Your task to perform on an android device: uninstall "Paramount+ | Peak Streaming" Image 0: 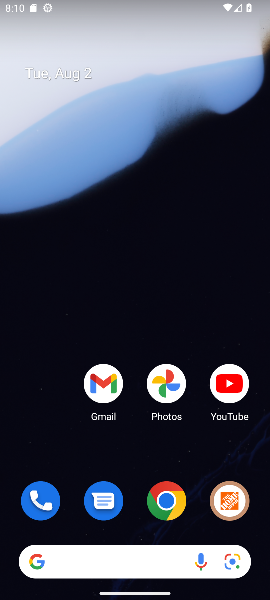
Step 0: drag from (157, 453) to (251, 87)
Your task to perform on an android device: uninstall "Paramount+ | Peak Streaming" Image 1: 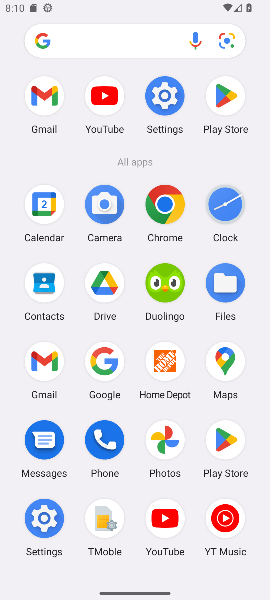
Step 1: click (224, 436)
Your task to perform on an android device: uninstall "Paramount+ | Peak Streaming" Image 2: 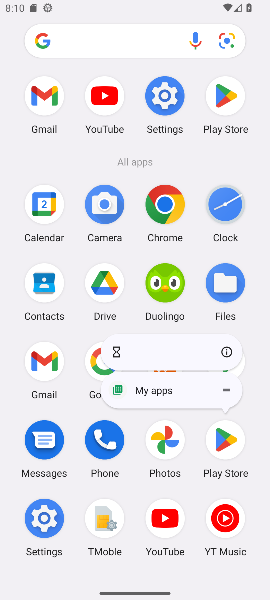
Step 2: click (219, 103)
Your task to perform on an android device: uninstall "Paramount+ | Peak Streaming" Image 3: 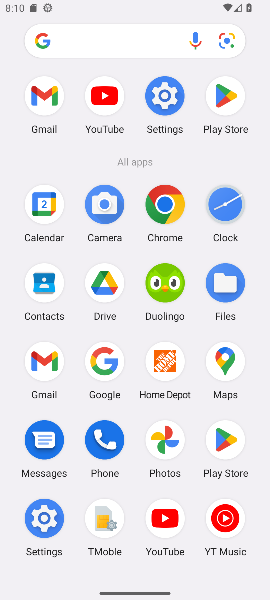
Step 3: click (227, 98)
Your task to perform on an android device: uninstall "Paramount+ | Peak Streaming" Image 4: 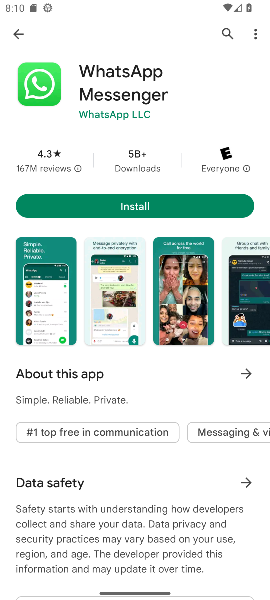
Step 4: drag from (147, 466) to (173, 137)
Your task to perform on an android device: uninstall "Paramount+ | Peak Streaming" Image 5: 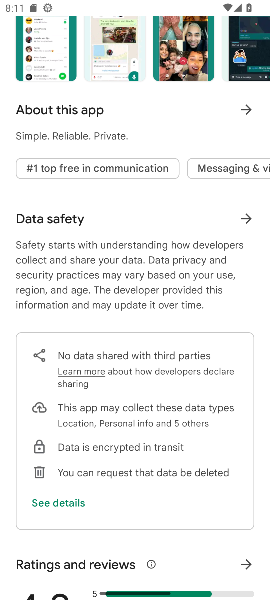
Step 5: drag from (188, 509) to (137, 335)
Your task to perform on an android device: uninstall "Paramount+ | Peak Streaming" Image 6: 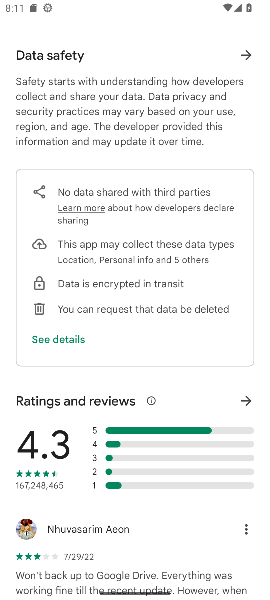
Step 6: drag from (153, 431) to (173, 227)
Your task to perform on an android device: uninstall "Paramount+ | Peak Streaming" Image 7: 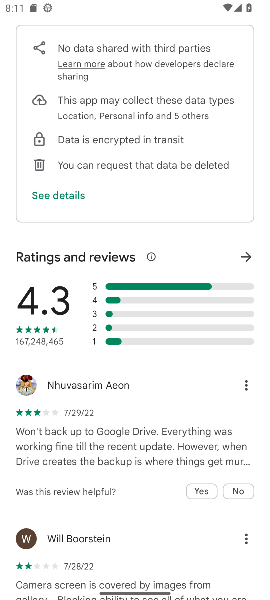
Step 7: drag from (153, 496) to (232, 82)
Your task to perform on an android device: uninstall "Paramount+ | Peak Streaming" Image 8: 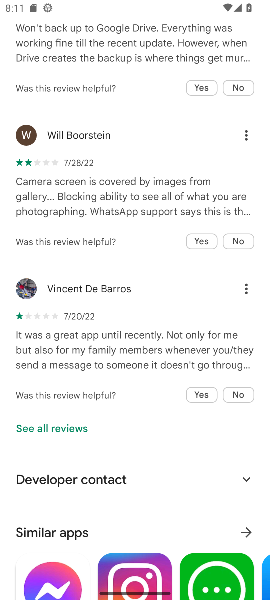
Step 8: drag from (159, 489) to (165, 136)
Your task to perform on an android device: uninstall "Paramount+ | Peak Streaming" Image 9: 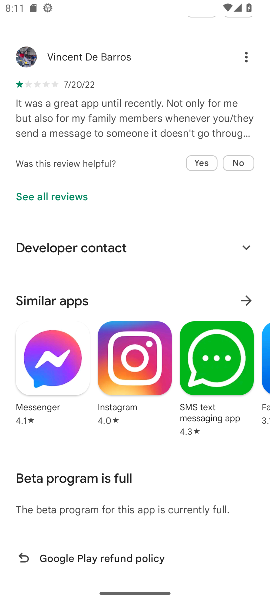
Step 9: drag from (154, 554) to (187, 152)
Your task to perform on an android device: uninstall "Paramount+ | Peak Streaming" Image 10: 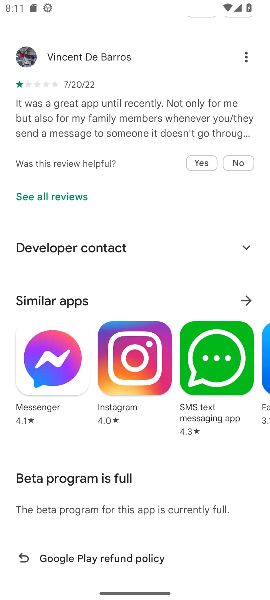
Step 10: drag from (163, 529) to (153, 99)
Your task to perform on an android device: uninstall "Paramount+ | Peak Streaming" Image 11: 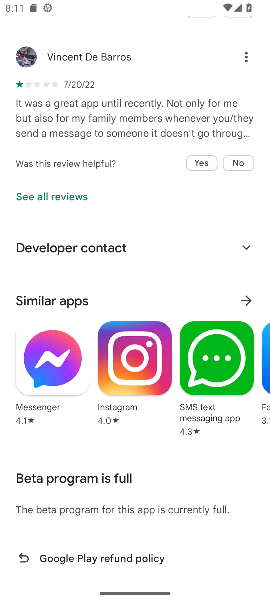
Step 11: drag from (126, 521) to (131, 184)
Your task to perform on an android device: uninstall "Paramount+ | Peak Streaming" Image 12: 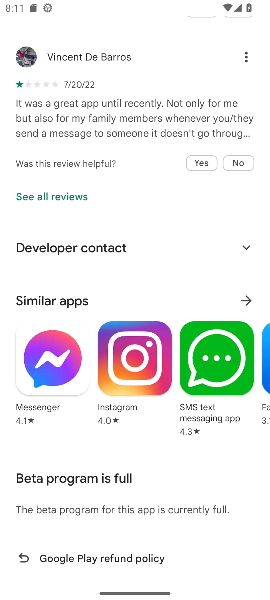
Step 12: drag from (120, 507) to (120, 196)
Your task to perform on an android device: uninstall "Paramount+ | Peak Streaming" Image 13: 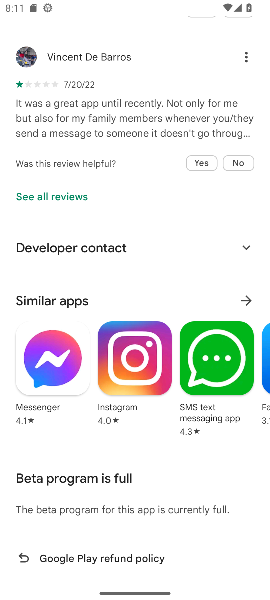
Step 13: drag from (158, 533) to (135, 158)
Your task to perform on an android device: uninstall "Paramount+ | Peak Streaming" Image 14: 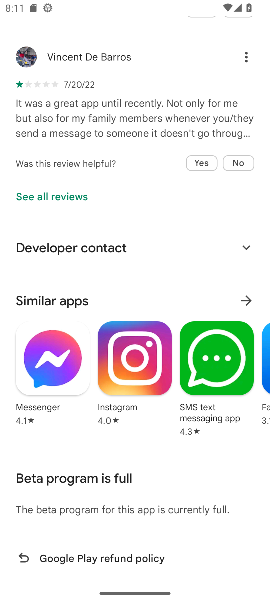
Step 14: drag from (131, 552) to (140, 223)
Your task to perform on an android device: uninstall "Paramount+ | Peak Streaming" Image 15: 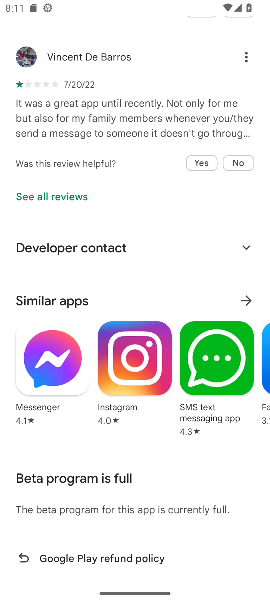
Step 15: drag from (104, 496) to (215, 180)
Your task to perform on an android device: uninstall "Paramount+ | Peak Streaming" Image 16: 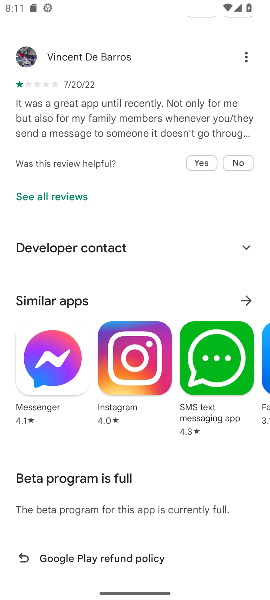
Step 16: drag from (158, 231) to (182, 599)
Your task to perform on an android device: uninstall "Paramount+ | Peak Streaming" Image 17: 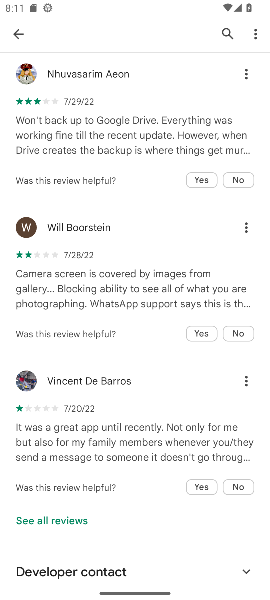
Step 17: drag from (140, 216) to (157, 574)
Your task to perform on an android device: uninstall "Paramount+ | Peak Streaming" Image 18: 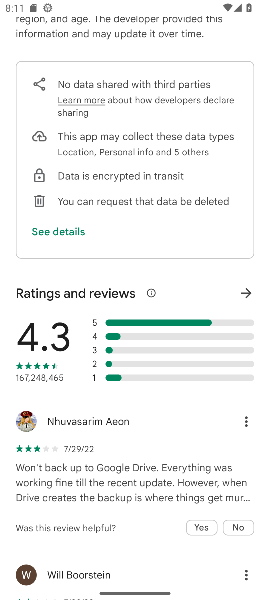
Step 18: drag from (136, 248) to (119, 533)
Your task to perform on an android device: uninstall "Paramount+ | Peak Streaming" Image 19: 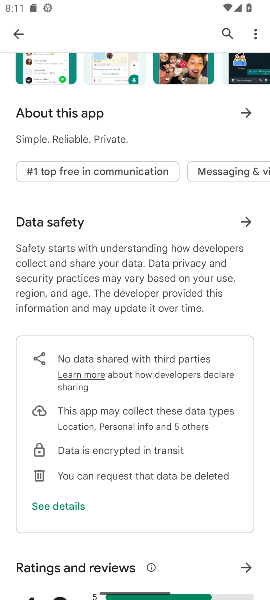
Step 19: drag from (130, 283) to (214, 592)
Your task to perform on an android device: uninstall "Paramount+ | Peak Streaming" Image 20: 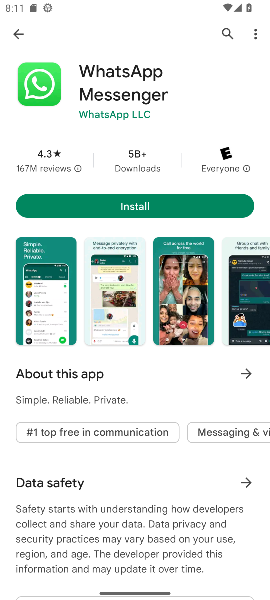
Step 20: click (229, 28)
Your task to perform on an android device: uninstall "Paramount+ | Peak Streaming" Image 21: 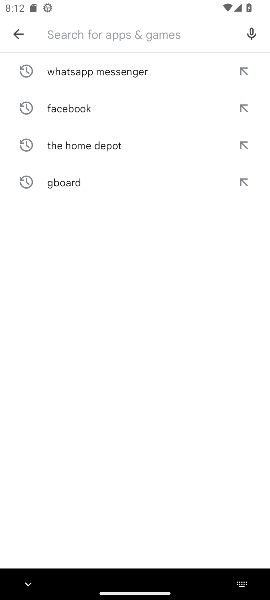
Step 21: click (64, 46)
Your task to perform on an android device: uninstall "Paramount+ | Peak Streaming" Image 22: 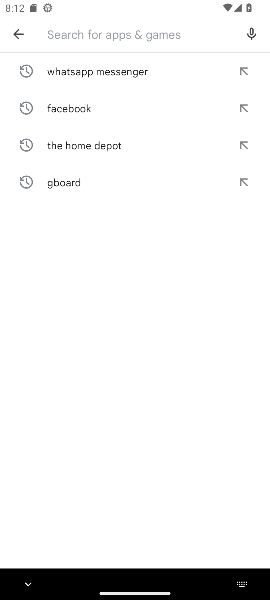
Step 22: type "Paramount+ | Peak Streaming"
Your task to perform on an android device: uninstall "Paramount+ | Peak Streaming" Image 23: 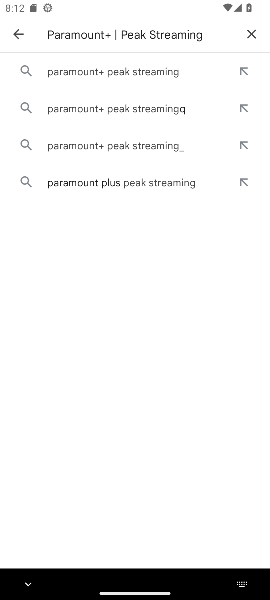
Step 23: click (252, 38)
Your task to perform on an android device: uninstall "Paramount+ | Peak Streaming" Image 24: 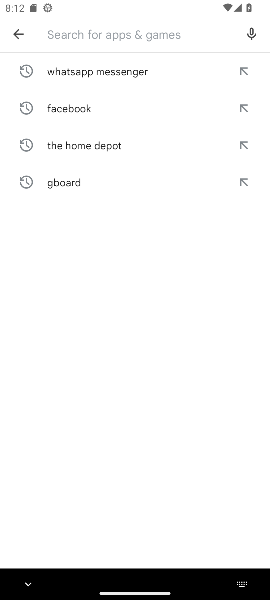
Step 24: click (91, 29)
Your task to perform on an android device: uninstall "Paramount+ | Peak Streaming" Image 25: 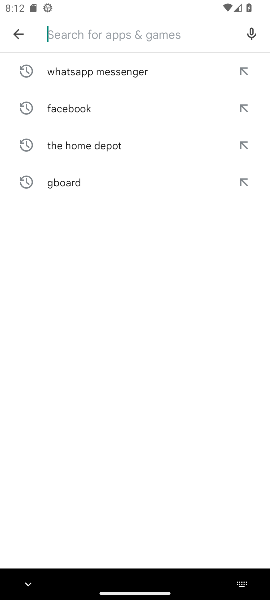
Step 25: type "Paramount+ | Peak Streaming"
Your task to perform on an android device: uninstall "Paramount+ | Peak Streaming" Image 26: 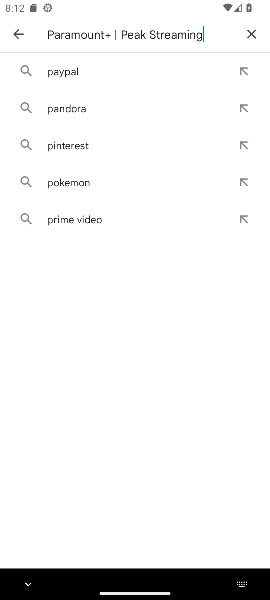
Step 26: type ""
Your task to perform on an android device: uninstall "Paramount+ | Peak Streaming" Image 27: 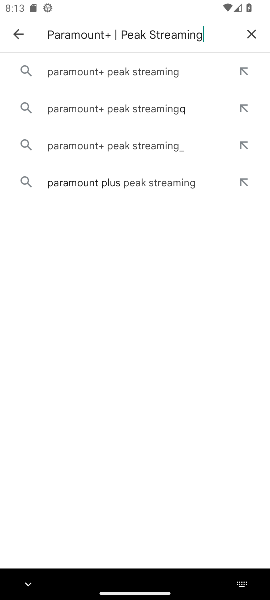
Step 27: click (107, 77)
Your task to perform on an android device: uninstall "Paramount+ | Peak Streaming" Image 28: 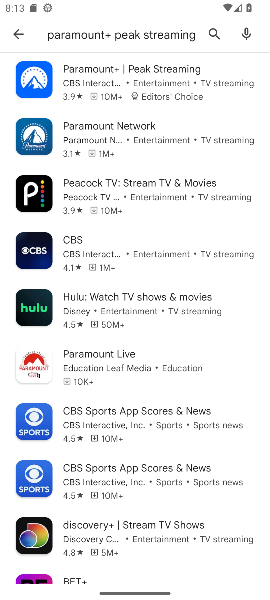
Step 28: click (132, 89)
Your task to perform on an android device: uninstall "Paramount+ | Peak Streaming" Image 29: 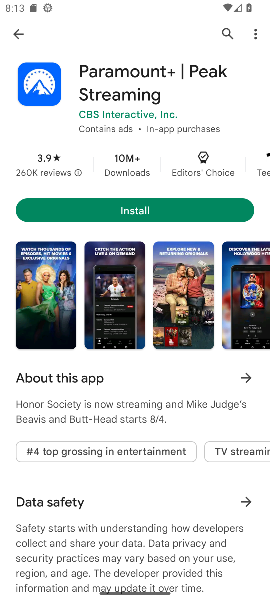
Step 29: task complete